Your task to perform on an android device: Where can I buy a nice beach towel? Image 0: 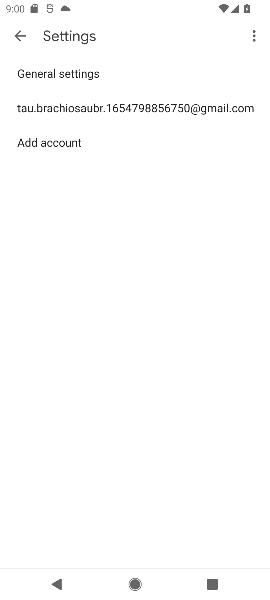
Step 0: press home button
Your task to perform on an android device: Where can I buy a nice beach towel? Image 1: 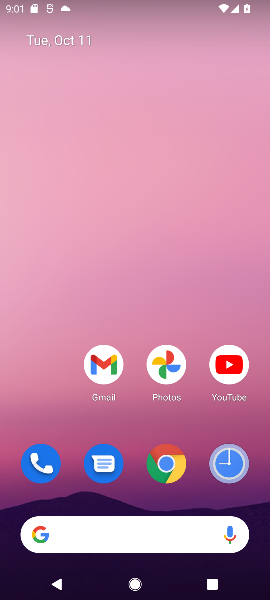
Step 1: drag from (127, 512) to (130, 155)
Your task to perform on an android device: Where can I buy a nice beach towel? Image 2: 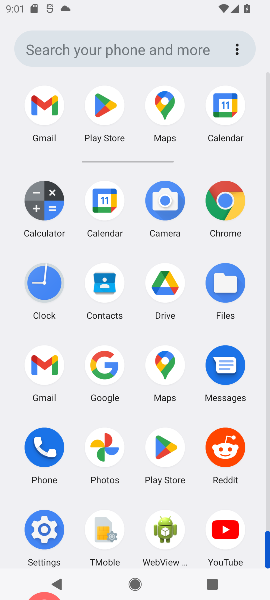
Step 2: click (108, 354)
Your task to perform on an android device: Where can I buy a nice beach towel? Image 3: 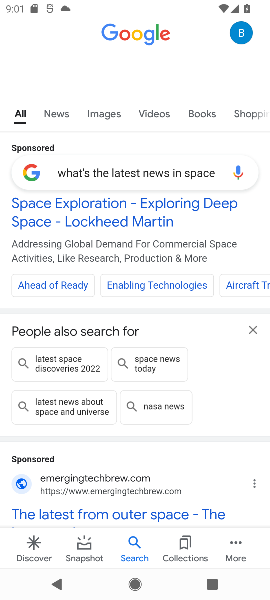
Step 3: drag from (141, 230) to (168, 454)
Your task to perform on an android device: Where can I buy a nice beach towel? Image 4: 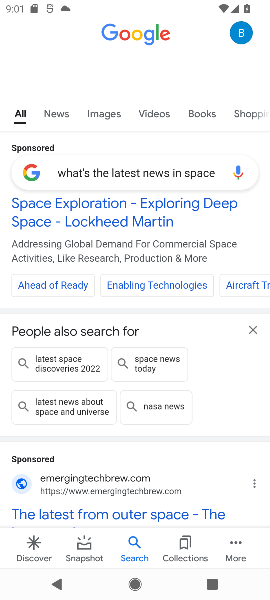
Step 4: drag from (134, 220) to (134, 537)
Your task to perform on an android device: Where can I buy a nice beach towel? Image 5: 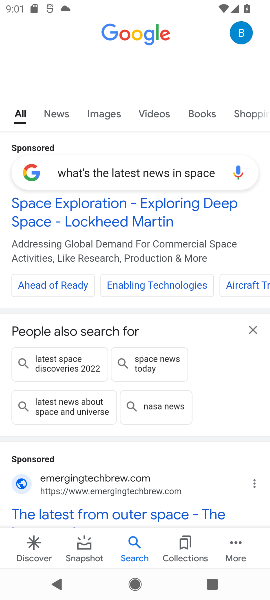
Step 5: click (127, 219)
Your task to perform on an android device: Where can I buy a nice beach towel? Image 6: 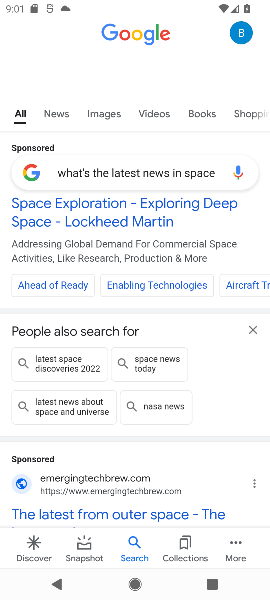
Step 6: click (81, 509)
Your task to perform on an android device: Where can I buy a nice beach towel? Image 7: 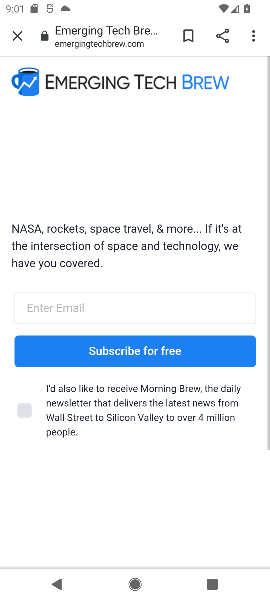
Step 7: press back button
Your task to perform on an android device: Where can I buy a nice beach towel? Image 8: 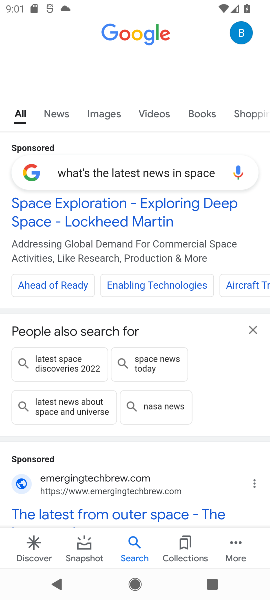
Step 8: press back button
Your task to perform on an android device: Where can I buy a nice beach towel? Image 9: 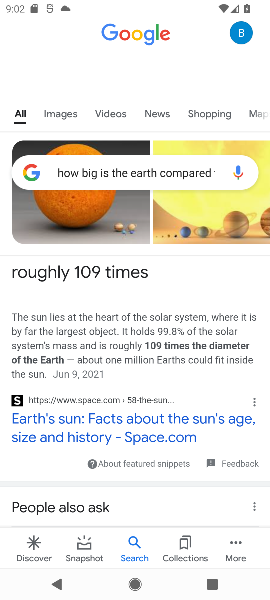
Step 9: click (132, 161)
Your task to perform on an android device: Where can I buy a nice beach towel? Image 10: 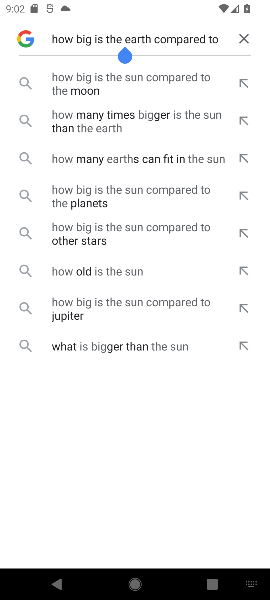
Step 10: click (239, 33)
Your task to perform on an android device: Where can I buy a nice beach towel? Image 11: 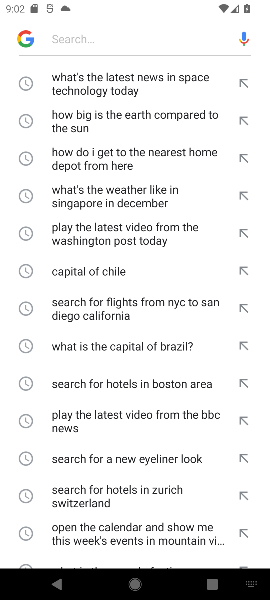
Step 11: click (140, 36)
Your task to perform on an android device: Where can I buy a nice beach towel? Image 12: 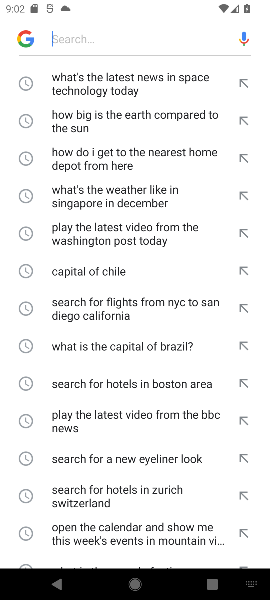
Step 12: type "Where can I buy a nice beach towel? "
Your task to perform on an android device: Where can I buy a nice beach towel? Image 13: 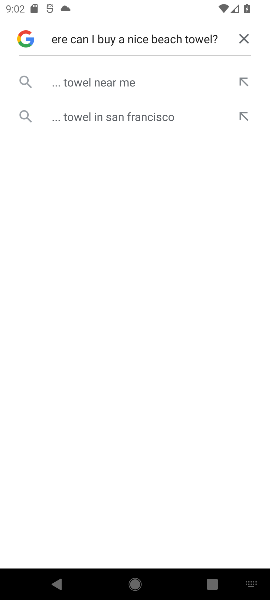
Step 13: click (133, 80)
Your task to perform on an android device: Where can I buy a nice beach towel? Image 14: 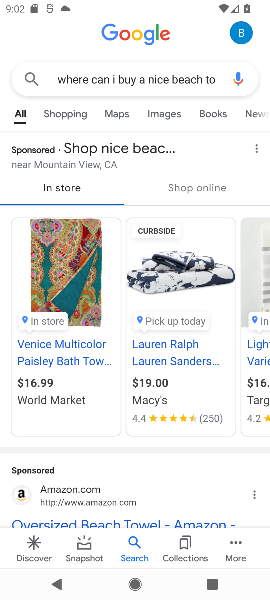
Step 14: drag from (109, 470) to (125, 183)
Your task to perform on an android device: Where can I buy a nice beach towel? Image 15: 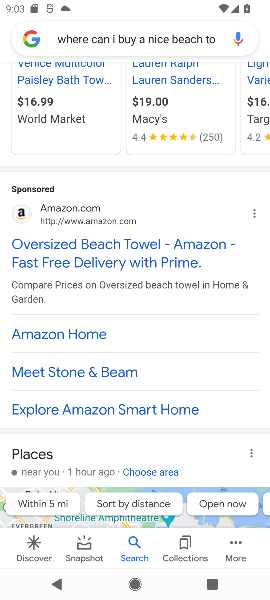
Step 15: click (101, 243)
Your task to perform on an android device: Where can I buy a nice beach towel? Image 16: 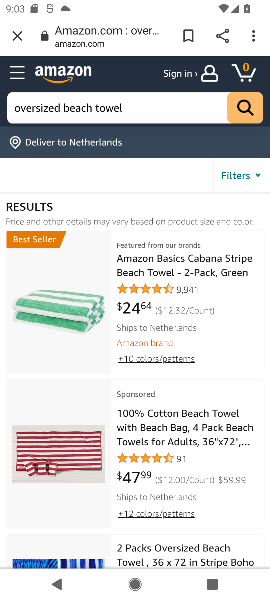
Step 16: task complete